Your task to perform on an android device: Open calendar and show me the second week of next month Image 0: 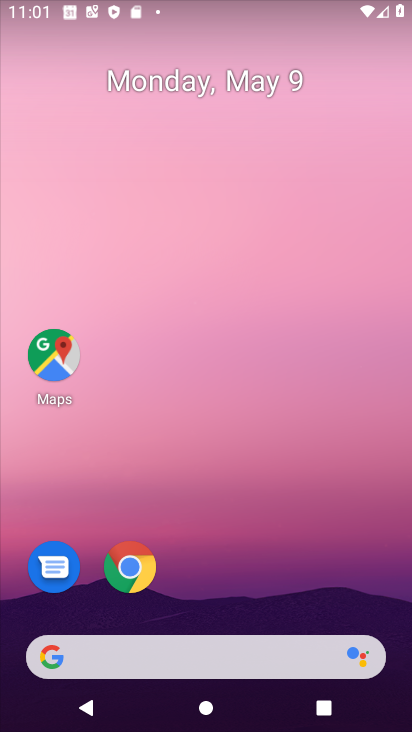
Step 0: drag from (182, 657) to (152, 242)
Your task to perform on an android device: Open calendar and show me the second week of next month Image 1: 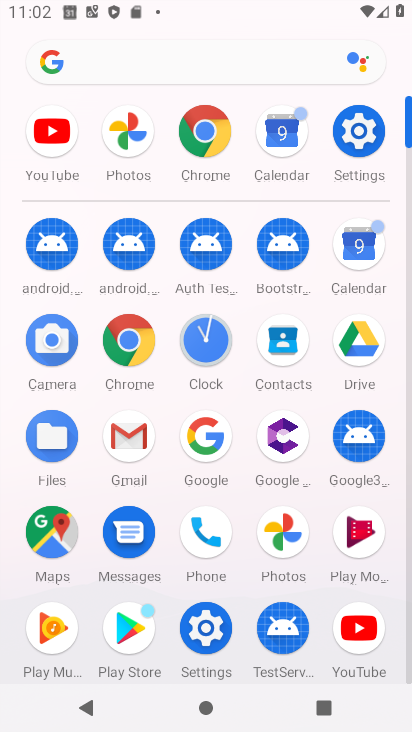
Step 1: click (365, 258)
Your task to perform on an android device: Open calendar and show me the second week of next month Image 2: 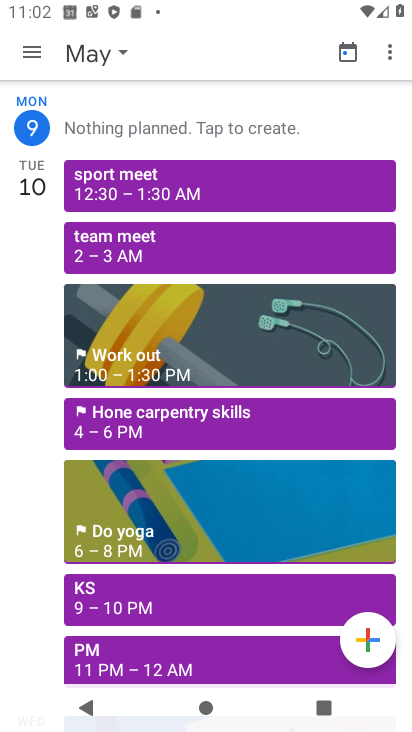
Step 2: click (31, 49)
Your task to perform on an android device: Open calendar and show me the second week of next month Image 3: 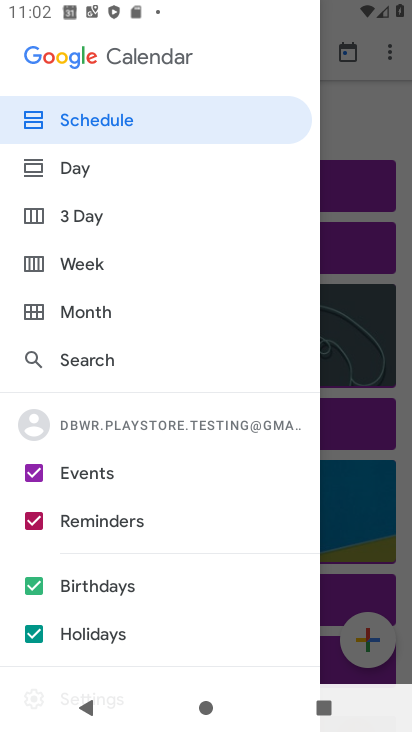
Step 3: click (86, 310)
Your task to perform on an android device: Open calendar and show me the second week of next month Image 4: 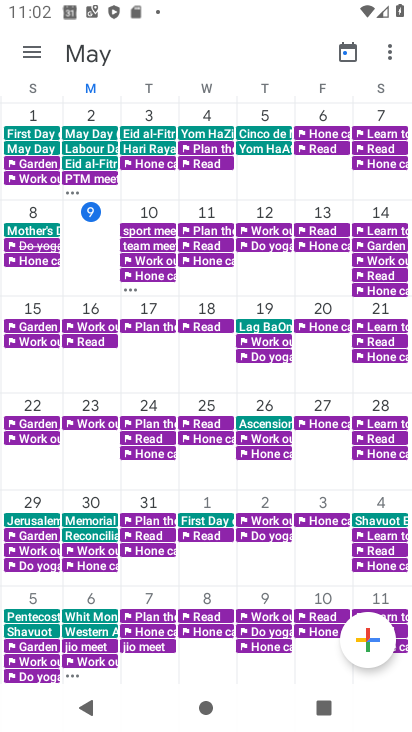
Step 4: task complete